Your task to perform on an android device: Open a new incognito window in the chrome app Image 0: 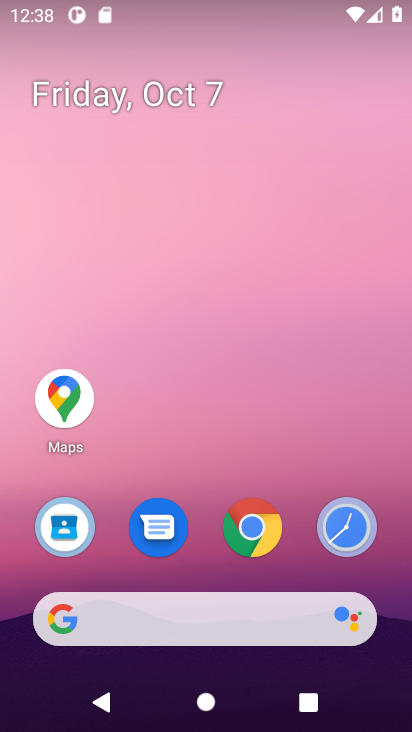
Step 0: click (257, 528)
Your task to perform on an android device: Open a new incognito window in the chrome app Image 1: 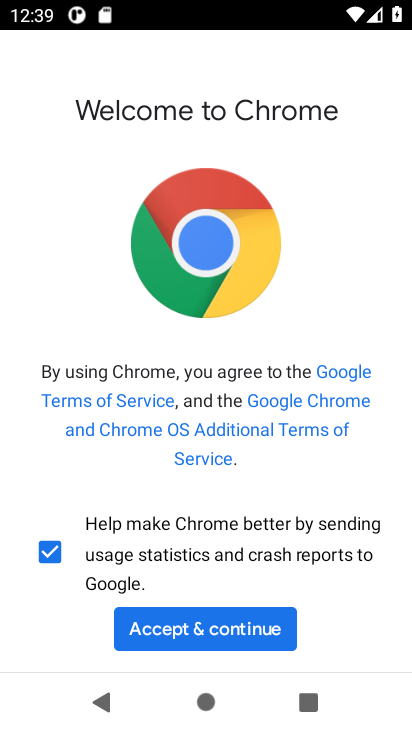
Step 1: click (122, 630)
Your task to perform on an android device: Open a new incognito window in the chrome app Image 2: 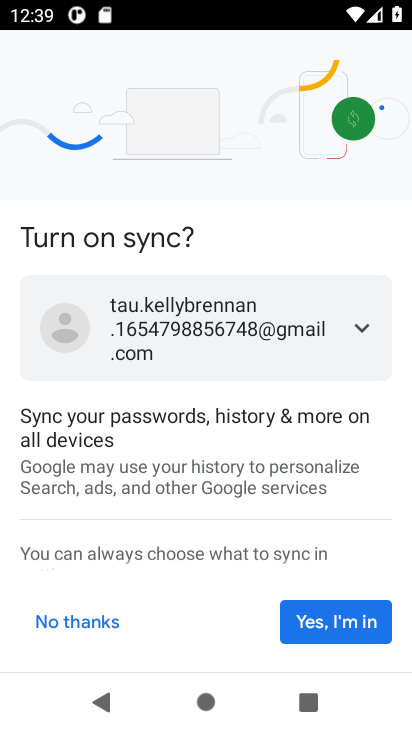
Step 2: click (320, 630)
Your task to perform on an android device: Open a new incognito window in the chrome app Image 3: 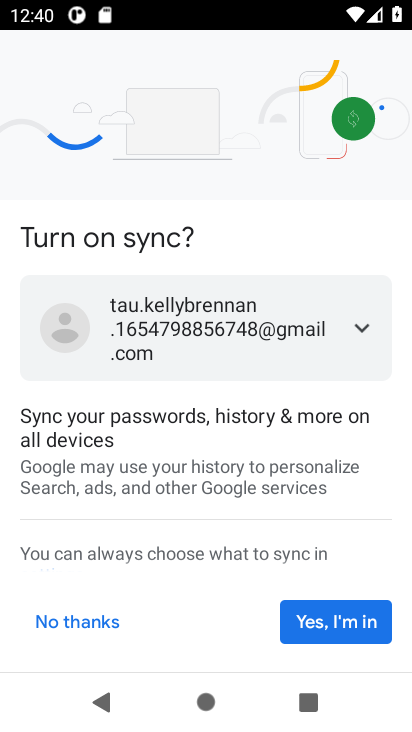
Step 3: click (320, 630)
Your task to perform on an android device: Open a new incognito window in the chrome app Image 4: 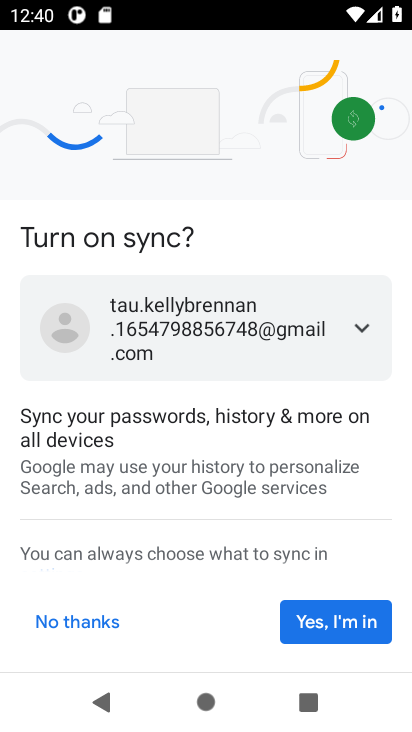
Step 4: click (320, 630)
Your task to perform on an android device: Open a new incognito window in the chrome app Image 5: 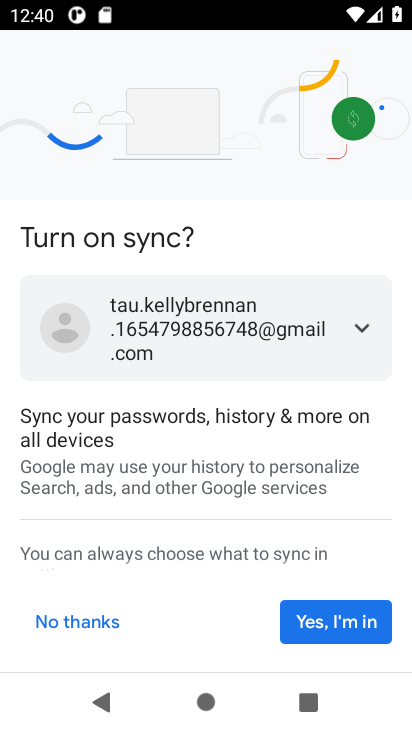
Step 5: click (360, 628)
Your task to perform on an android device: Open a new incognito window in the chrome app Image 6: 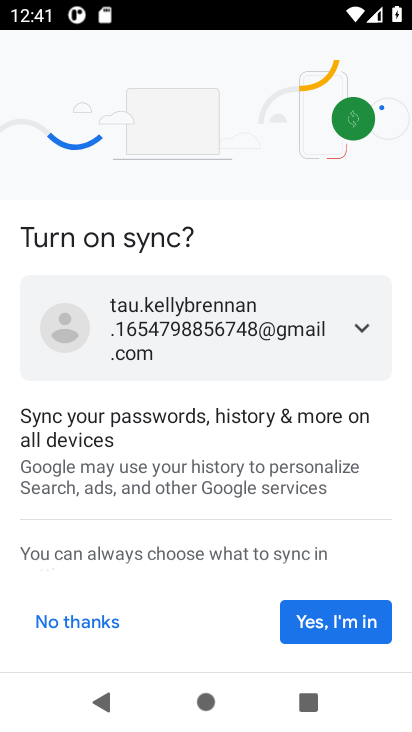
Step 6: click (360, 628)
Your task to perform on an android device: Open a new incognito window in the chrome app Image 7: 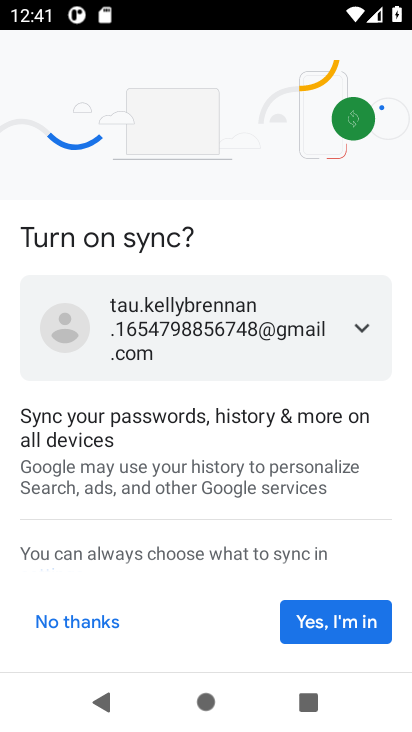
Step 7: click (360, 628)
Your task to perform on an android device: Open a new incognito window in the chrome app Image 8: 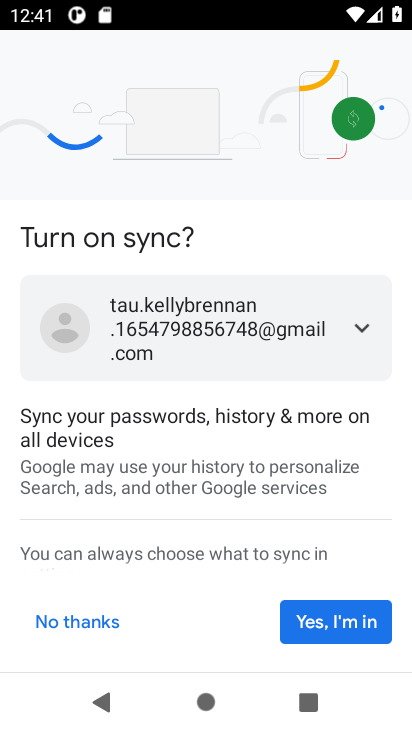
Step 8: click (50, 612)
Your task to perform on an android device: Open a new incognito window in the chrome app Image 9: 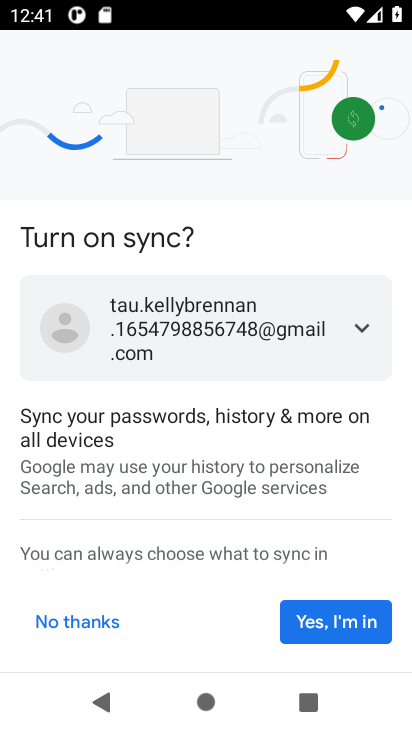
Step 9: click (50, 612)
Your task to perform on an android device: Open a new incognito window in the chrome app Image 10: 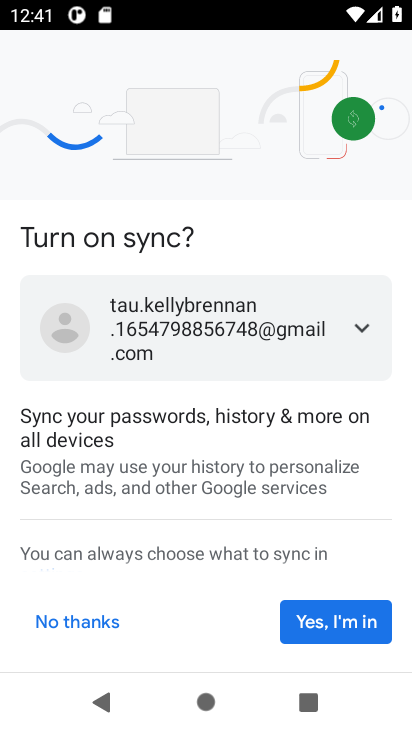
Step 10: click (50, 612)
Your task to perform on an android device: Open a new incognito window in the chrome app Image 11: 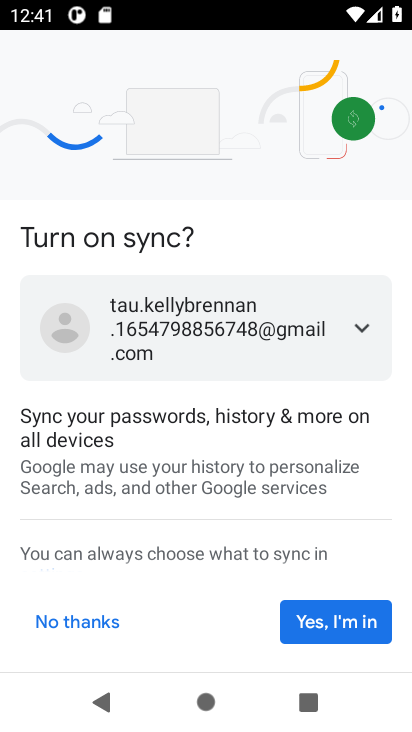
Step 11: press home button
Your task to perform on an android device: Open a new incognito window in the chrome app Image 12: 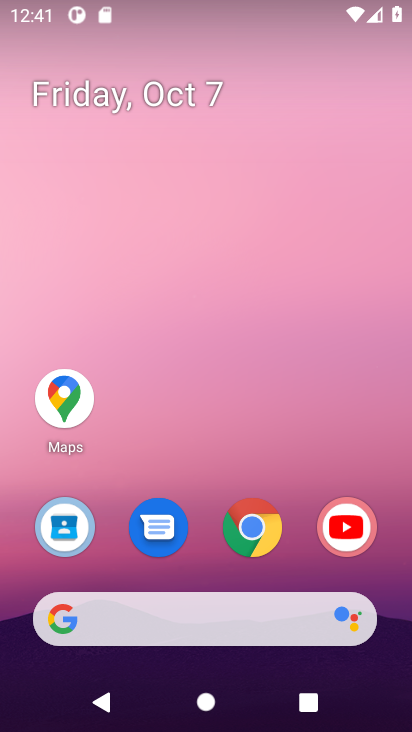
Step 12: click (266, 528)
Your task to perform on an android device: Open a new incognito window in the chrome app Image 13: 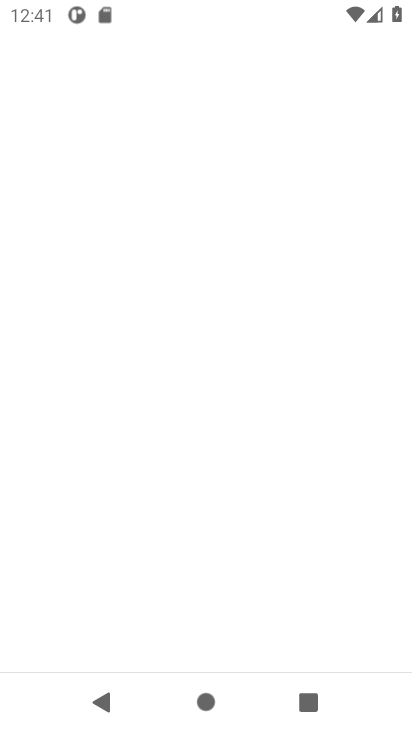
Step 13: press home button
Your task to perform on an android device: Open a new incognito window in the chrome app Image 14: 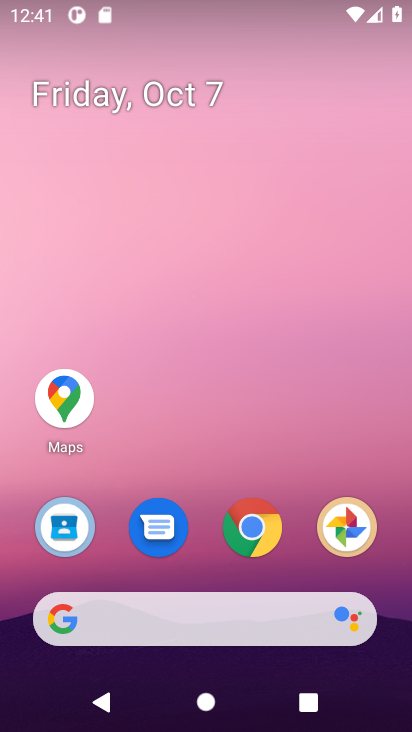
Step 14: click (255, 526)
Your task to perform on an android device: Open a new incognito window in the chrome app Image 15: 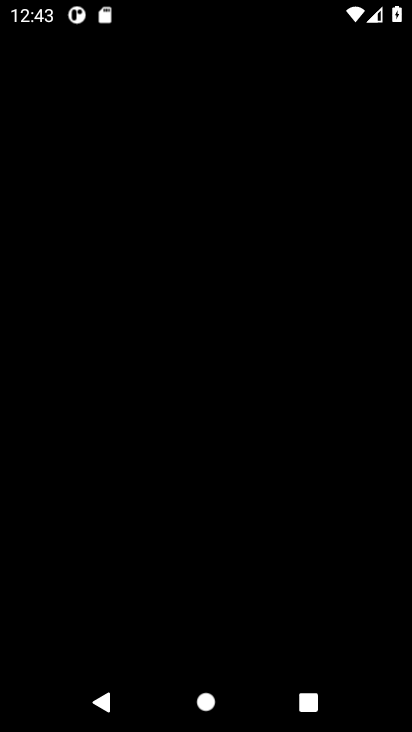
Step 15: task complete